Your task to perform on an android device: Look up the best selling books on Goodreads. Image 0: 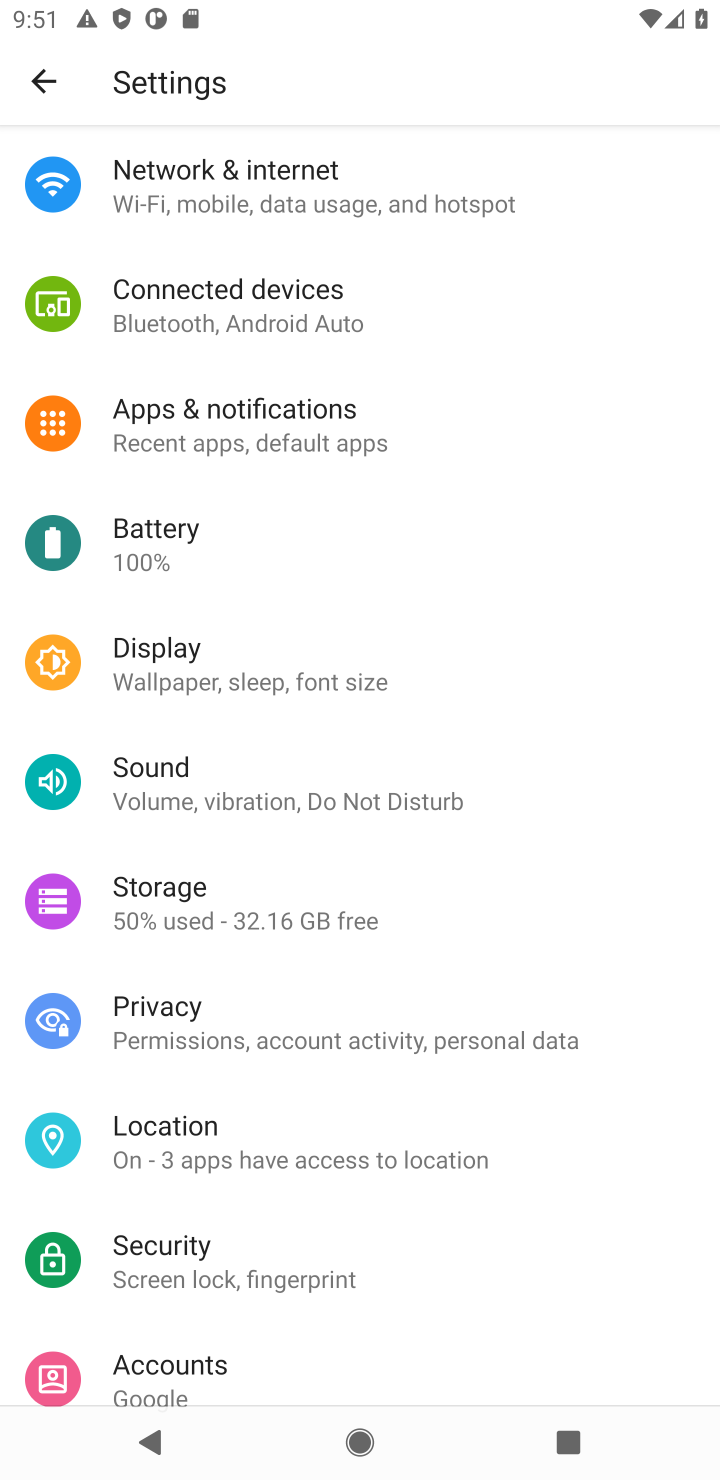
Step 0: press home button
Your task to perform on an android device: Look up the best selling books on Goodreads. Image 1: 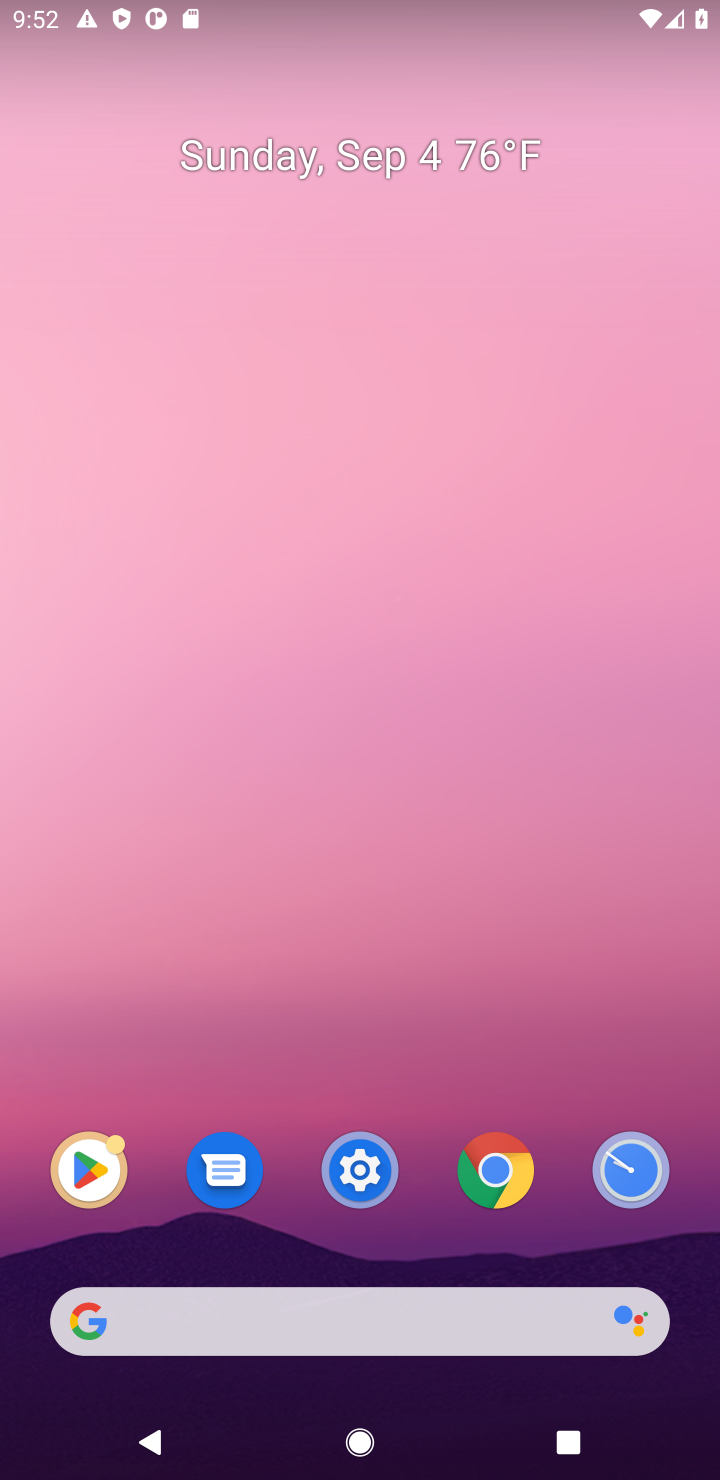
Step 1: click (333, 1314)
Your task to perform on an android device: Look up the best selling books on Goodreads. Image 2: 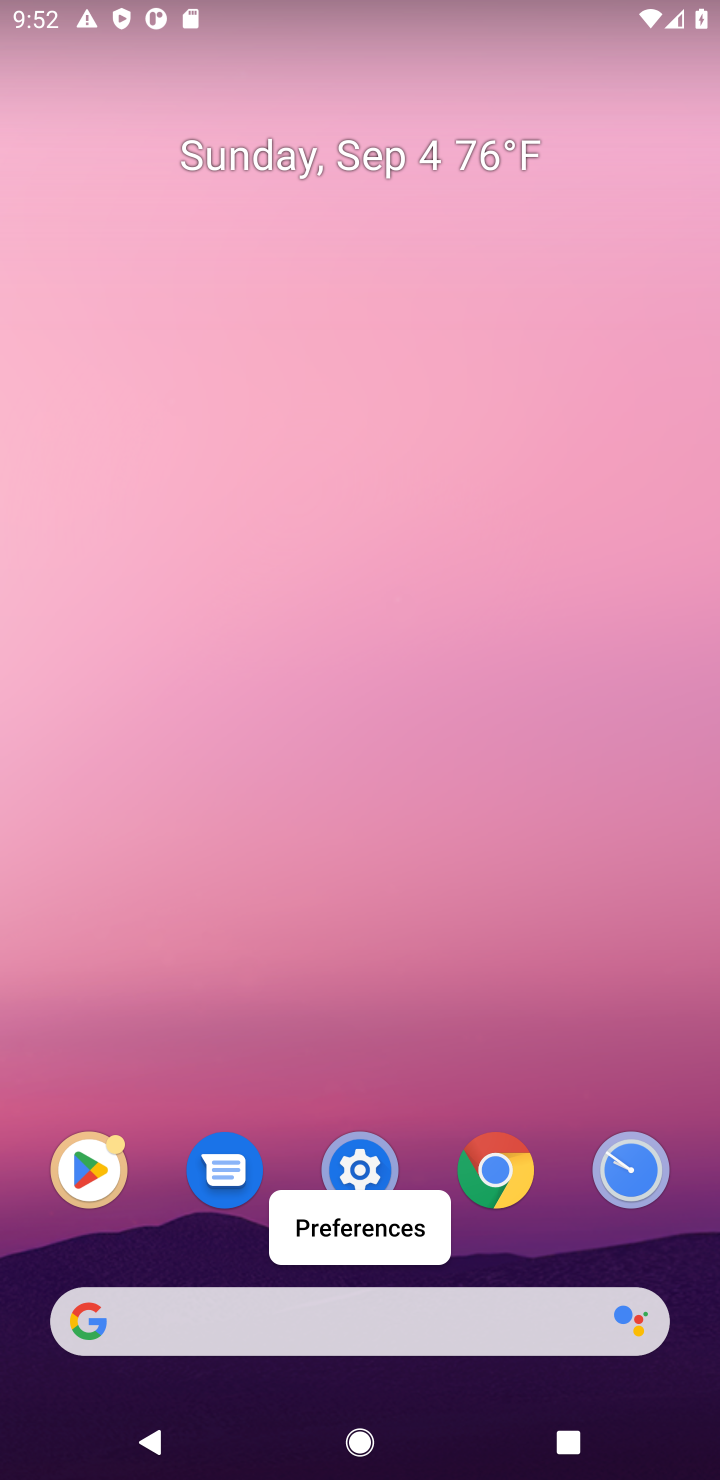
Step 2: click (333, 1314)
Your task to perform on an android device: Look up the best selling books on Goodreads. Image 3: 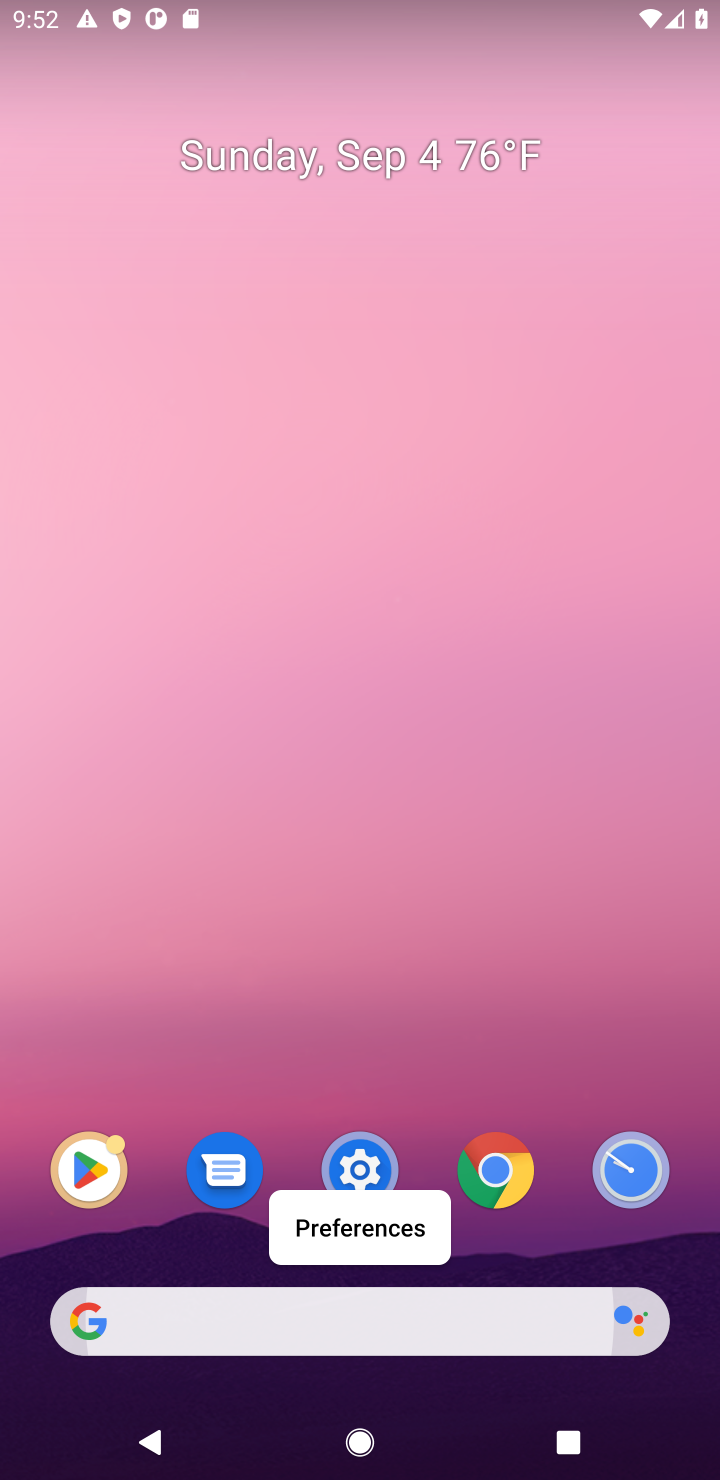
Step 3: click (333, 1314)
Your task to perform on an android device: Look up the best selling books on Goodreads. Image 4: 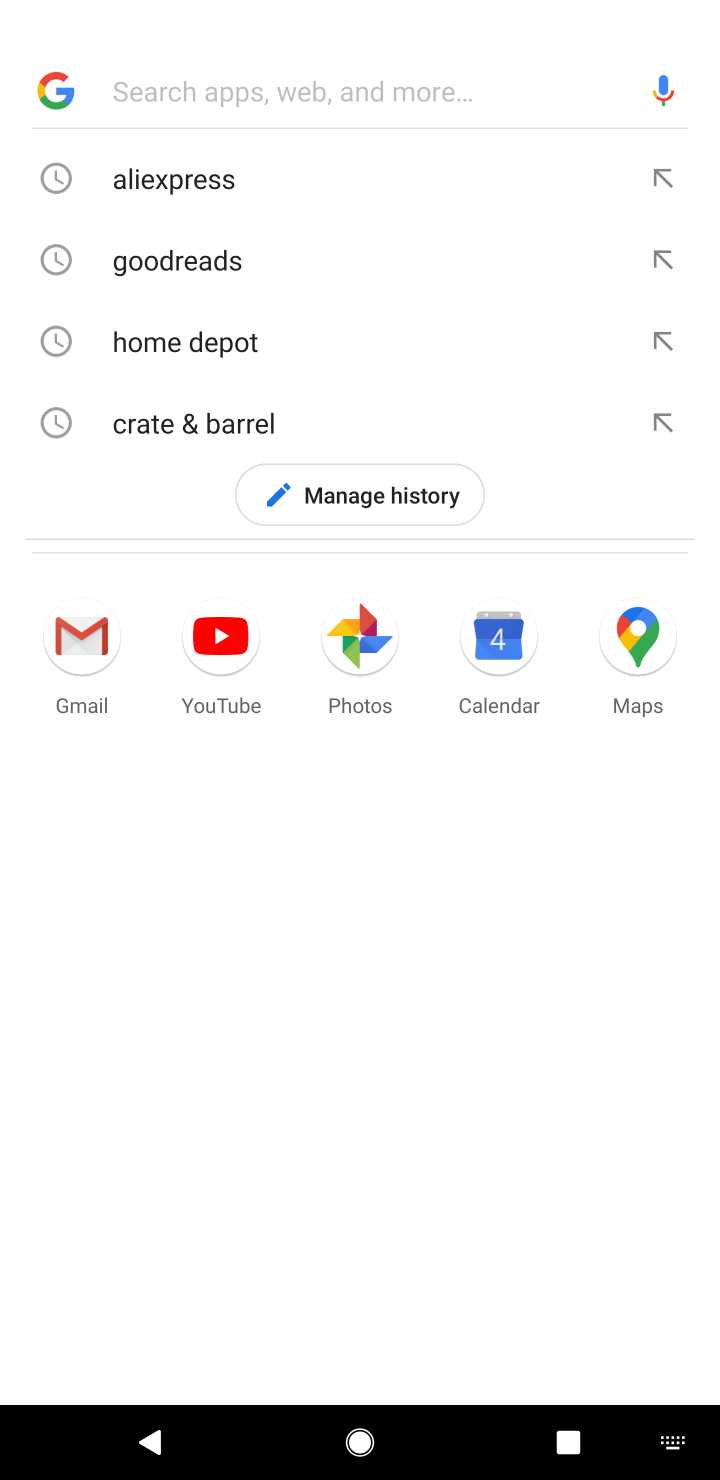
Step 4: click (279, 249)
Your task to perform on an android device: Look up the best selling books on Goodreads. Image 5: 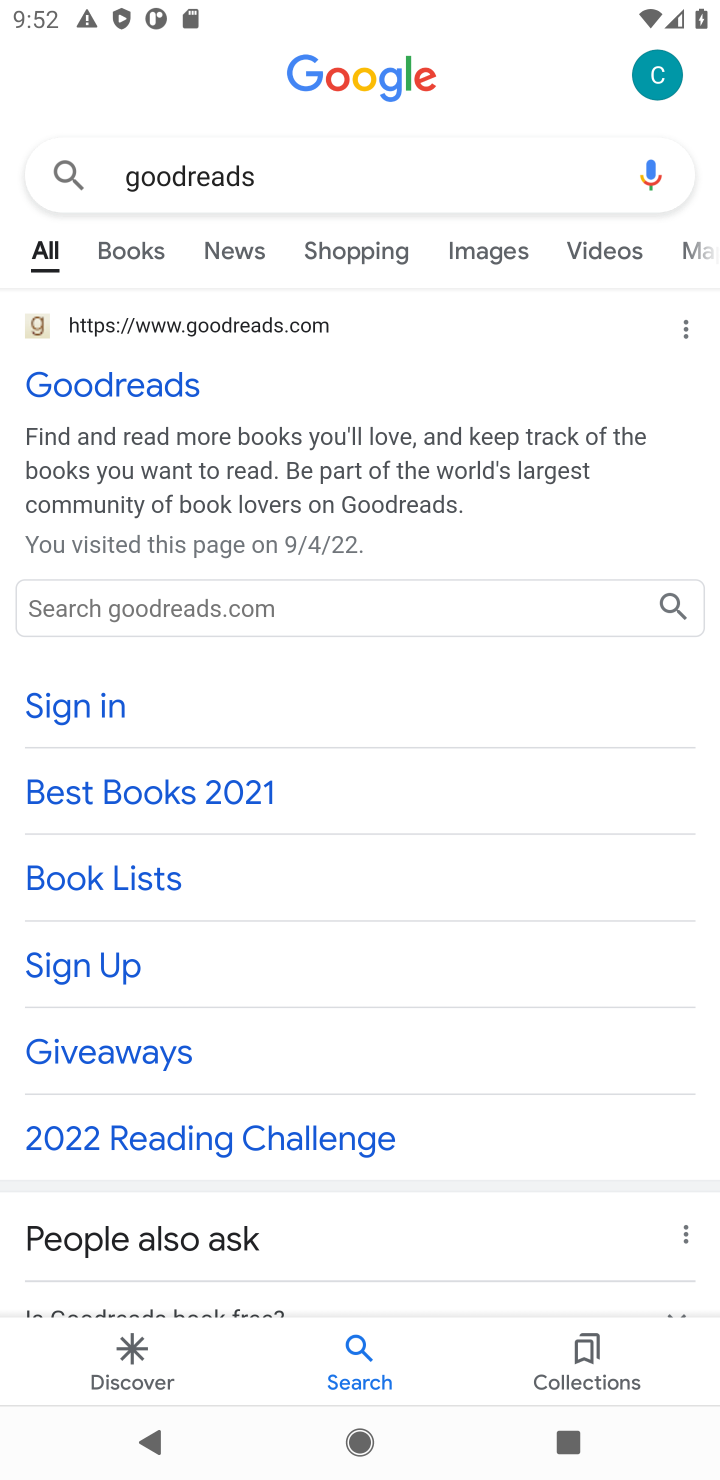
Step 5: click (129, 398)
Your task to perform on an android device: Look up the best selling books on Goodreads. Image 6: 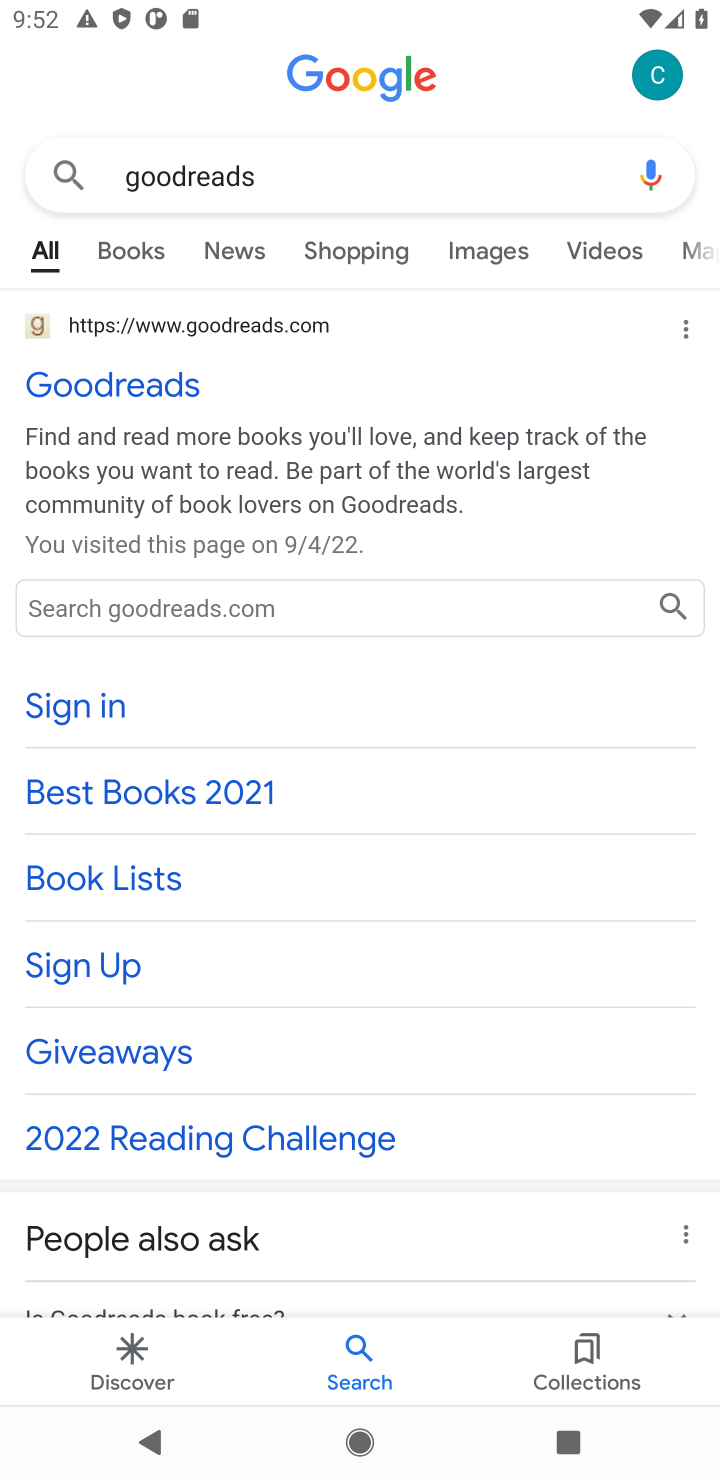
Step 6: click (110, 380)
Your task to perform on an android device: Look up the best selling books on Goodreads. Image 7: 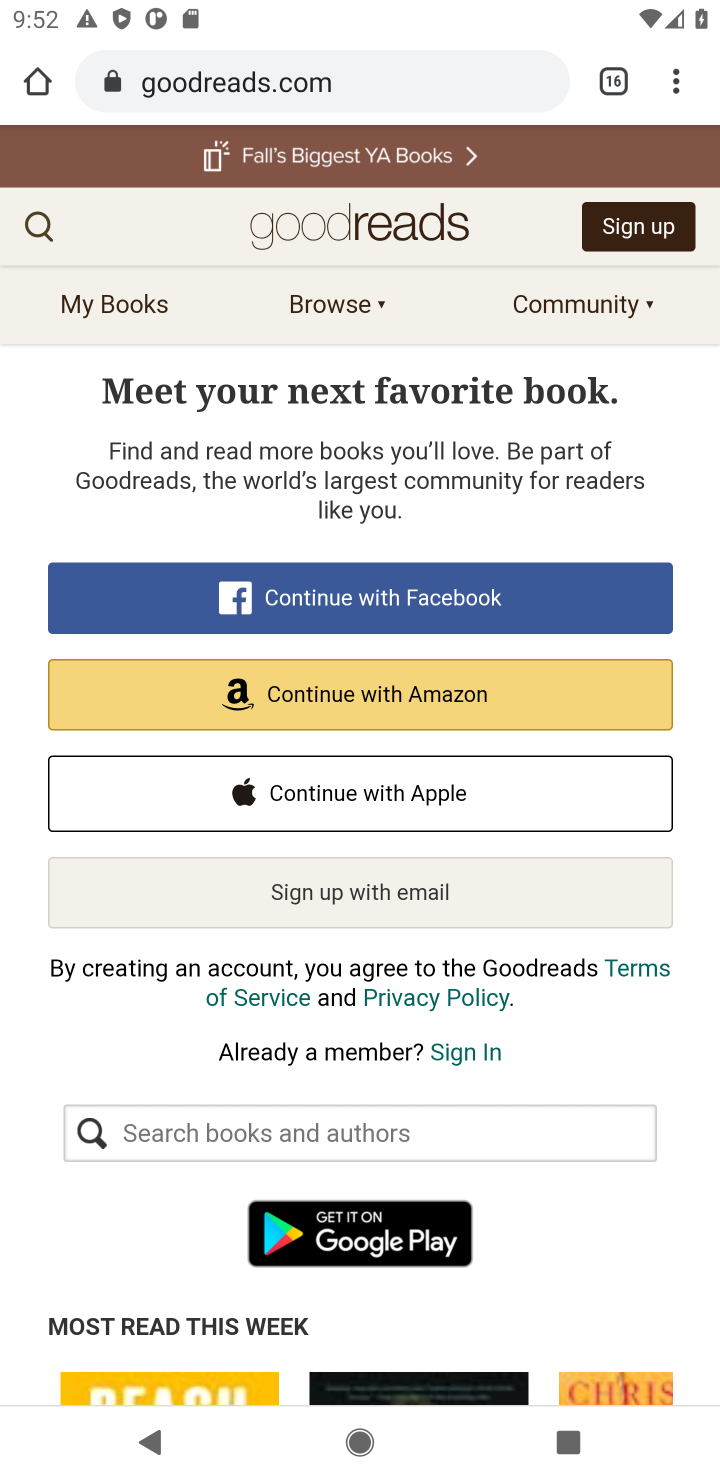
Step 7: click (33, 210)
Your task to perform on an android device: Look up the best selling books on Goodreads. Image 8: 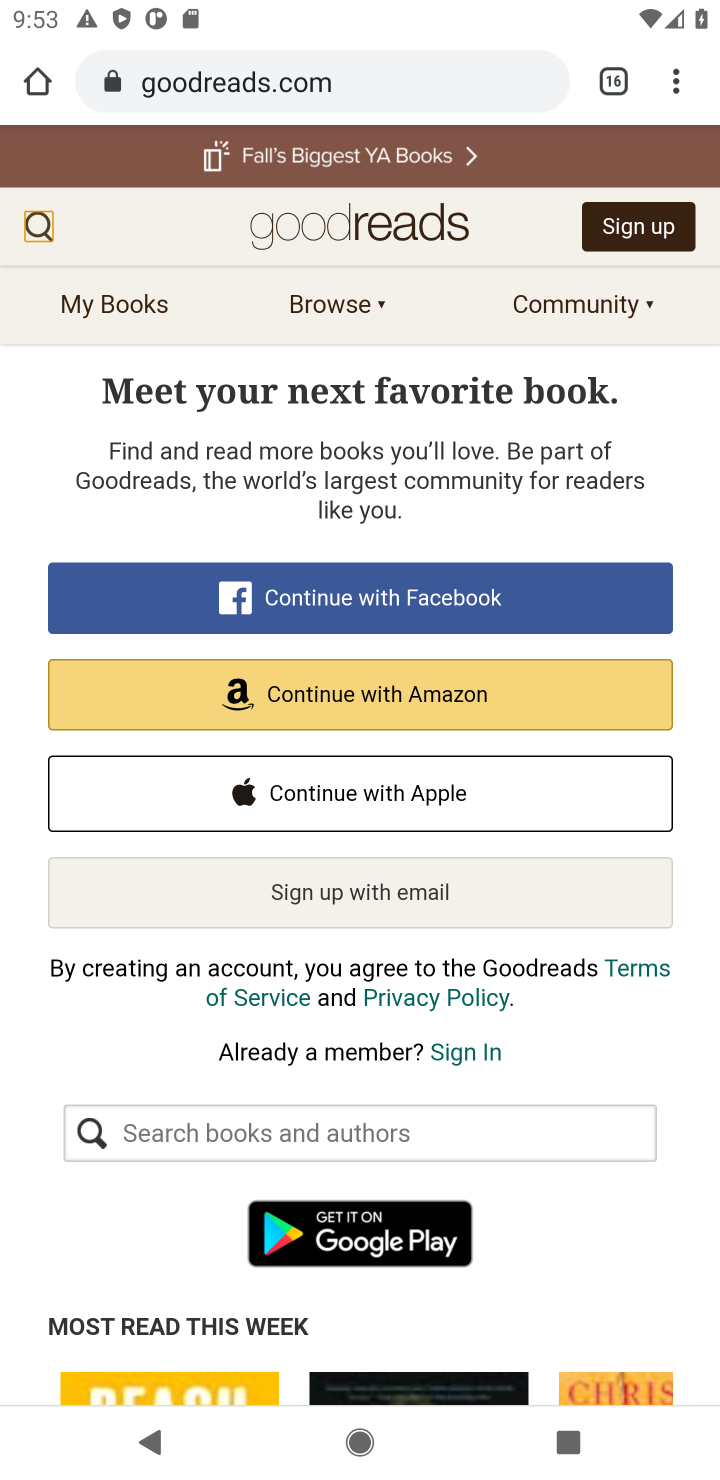
Step 8: click (39, 227)
Your task to perform on an android device: Look up the best selling books on Goodreads. Image 9: 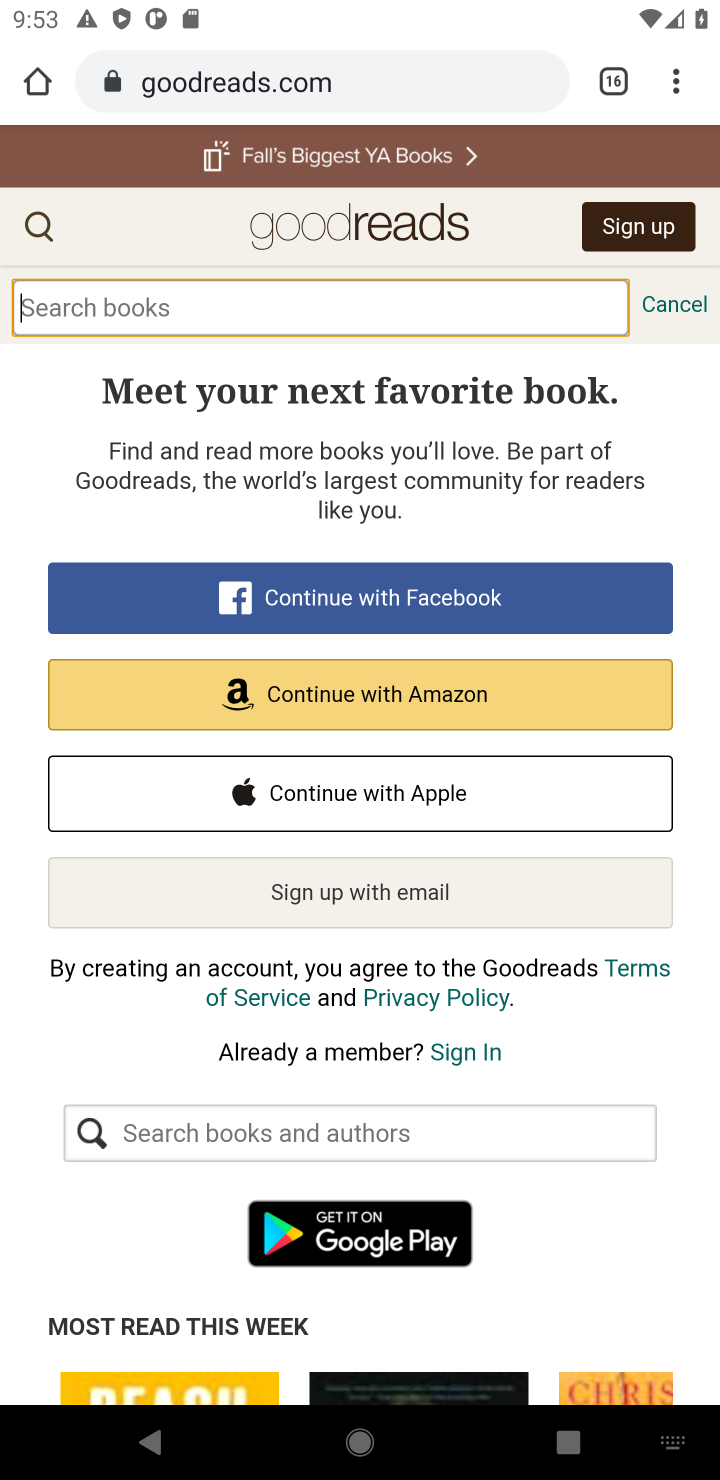
Step 9: click (196, 306)
Your task to perform on an android device: Look up the best selling books on Goodreads. Image 10: 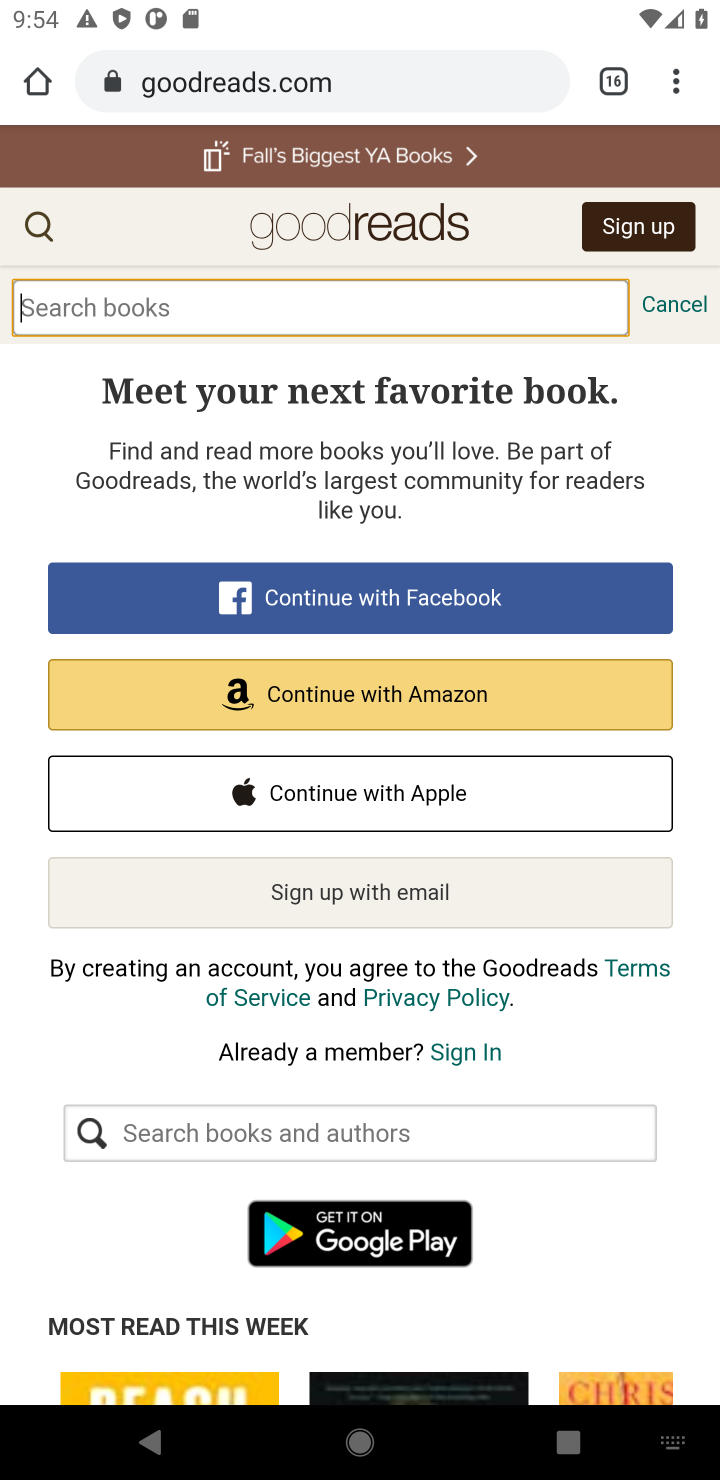
Step 10: type "selling books"
Your task to perform on an android device: Look up the best selling books on Goodreads. Image 11: 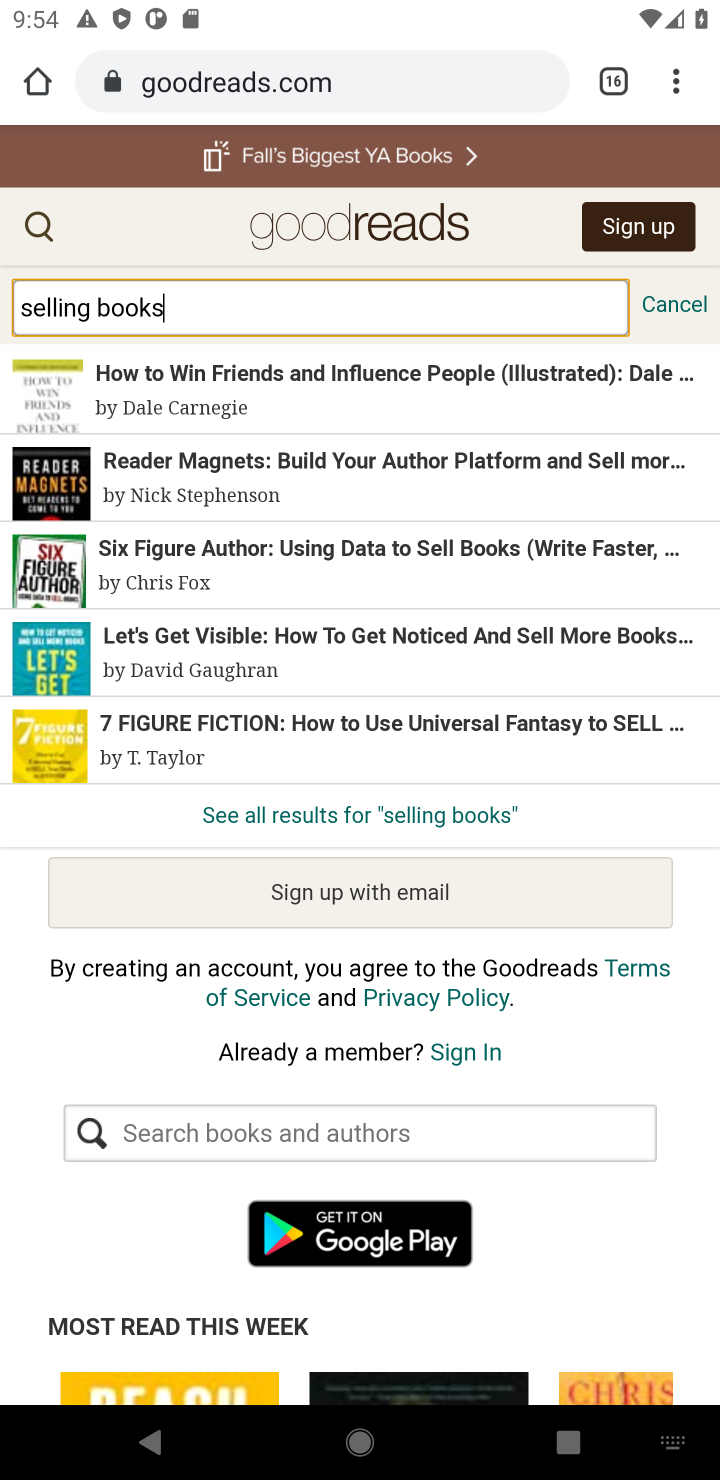
Step 11: click (203, 422)
Your task to perform on an android device: Look up the best selling books on Goodreads. Image 12: 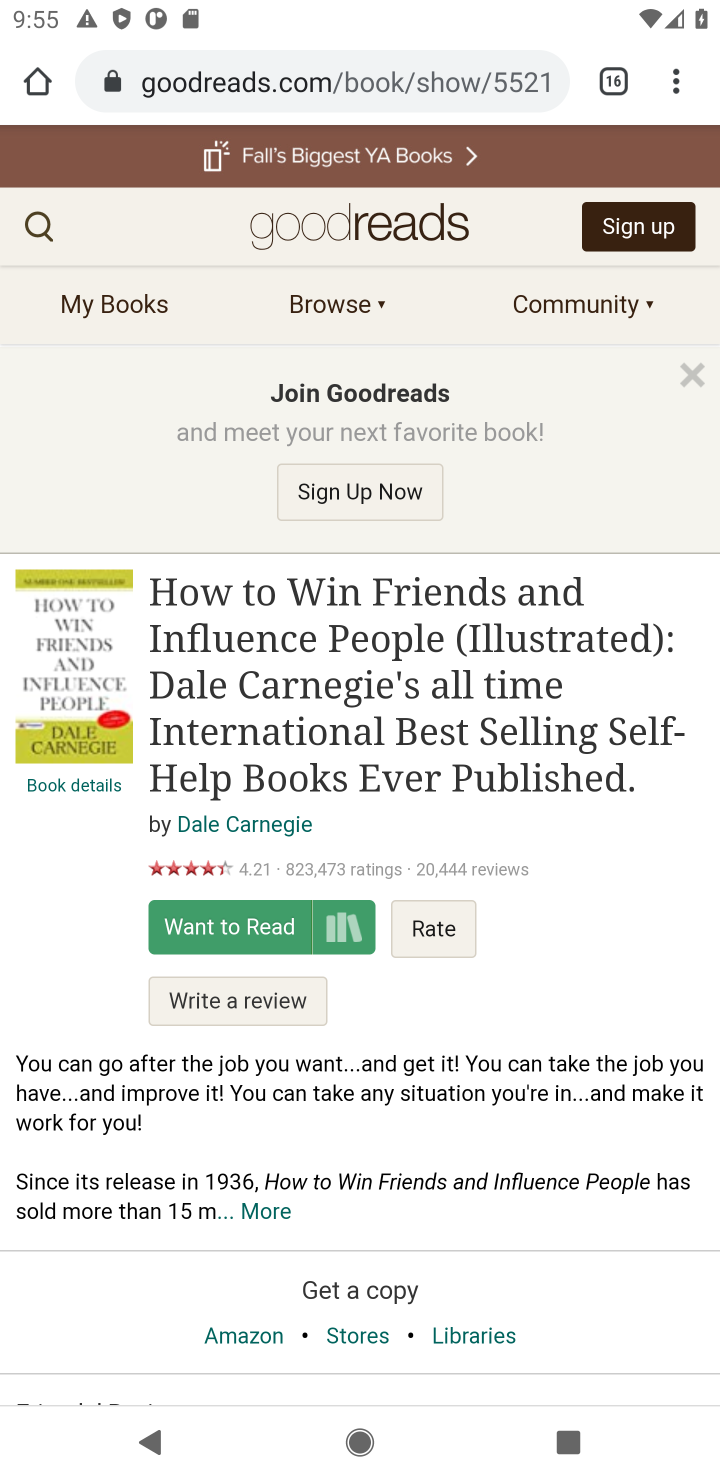
Step 12: task complete